Your task to perform on an android device: Open settings on Google Maps Image 0: 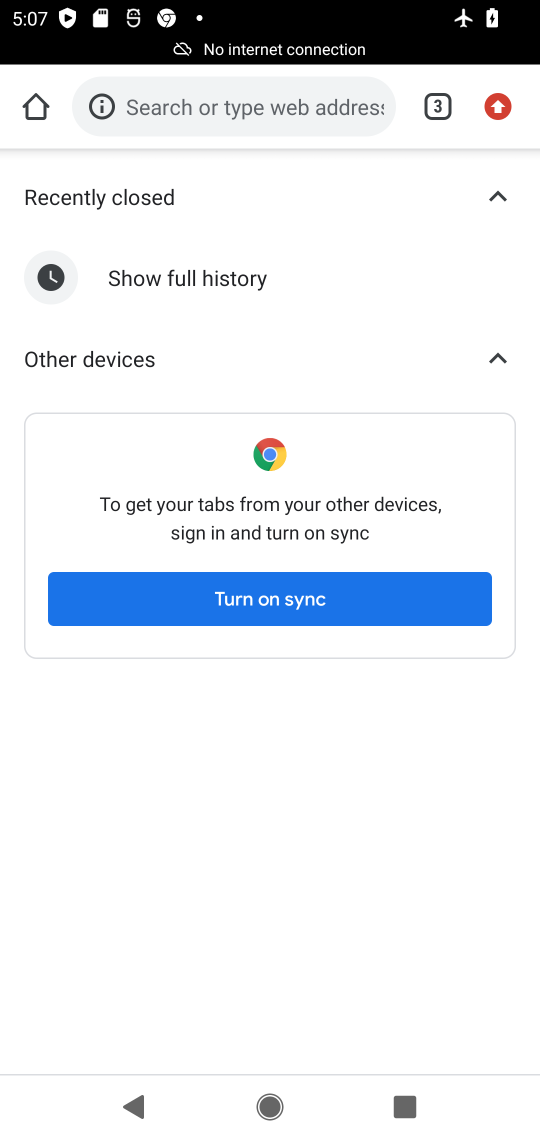
Step 0: press home button
Your task to perform on an android device: Open settings on Google Maps Image 1: 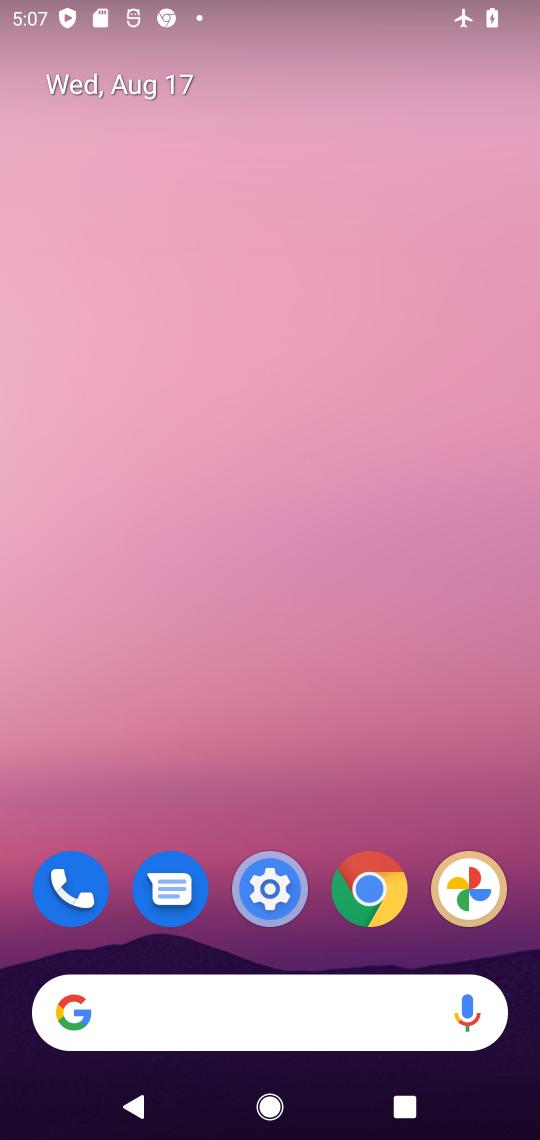
Step 1: drag from (328, 750) to (264, 118)
Your task to perform on an android device: Open settings on Google Maps Image 2: 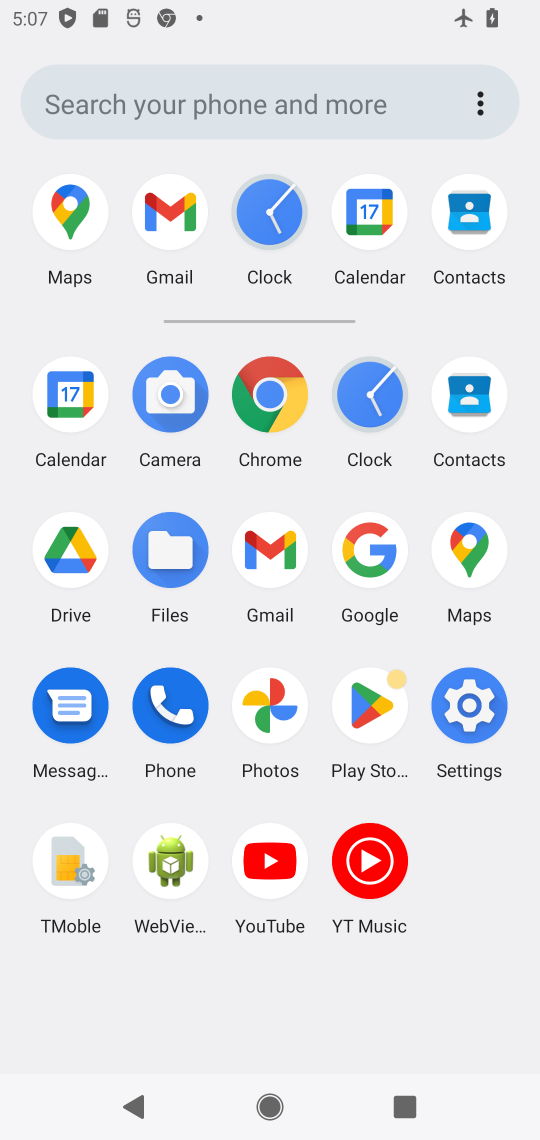
Step 2: click (73, 201)
Your task to perform on an android device: Open settings on Google Maps Image 3: 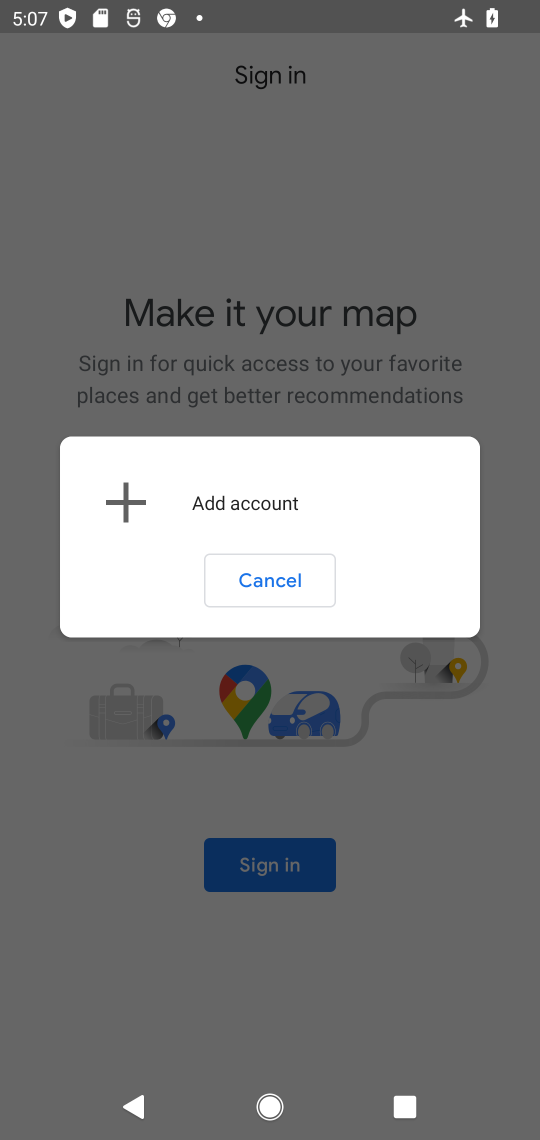
Step 3: click (271, 575)
Your task to perform on an android device: Open settings on Google Maps Image 4: 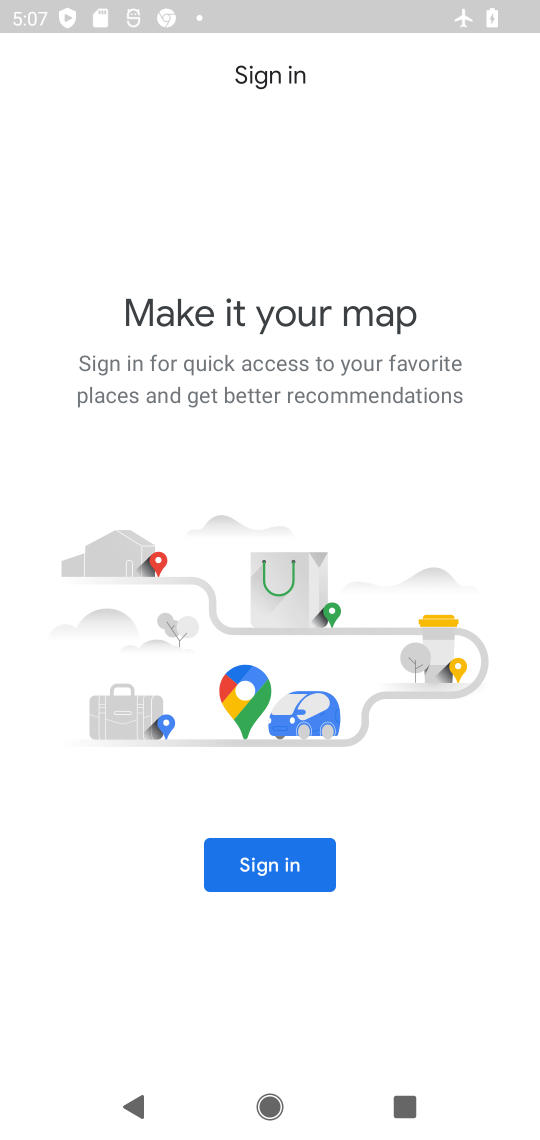
Step 4: task complete